Your task to perform on an android device: Open Google Maps Image 0: 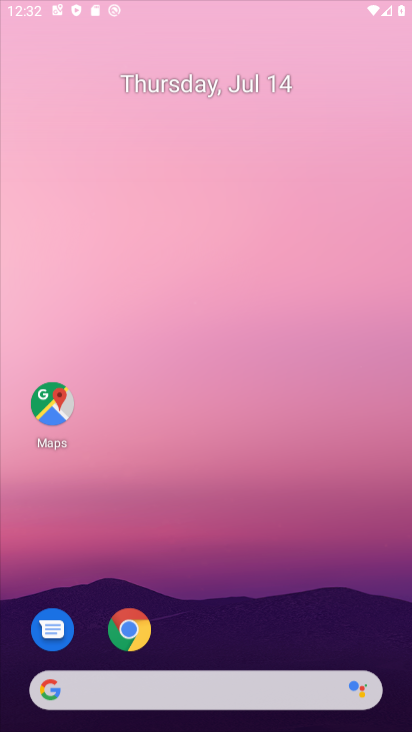
Step 0: click (243, 307)
Your task to perform on an android device: Open Google Maps Image 1: 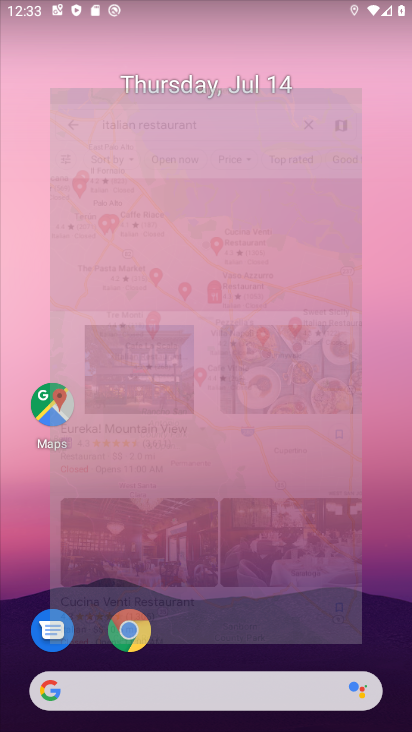
Step 1: drag from (275, 663) to (292, 485)
Your task to perform on an android device: Open Google Maps Image 2: 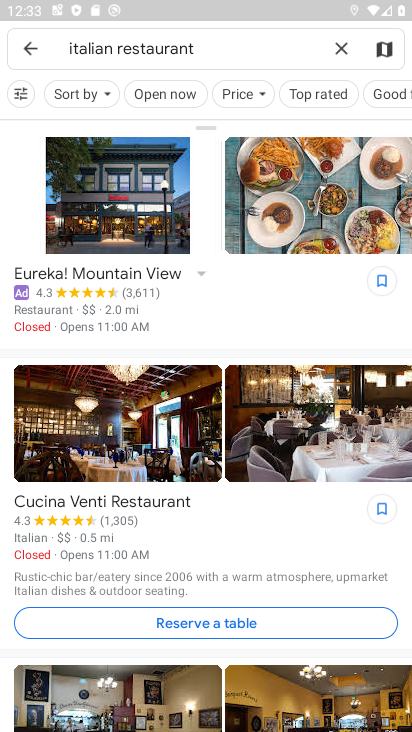
Step 2: click (30, 45)
Your task to perform on an android device: Open Google Maps Image 3: 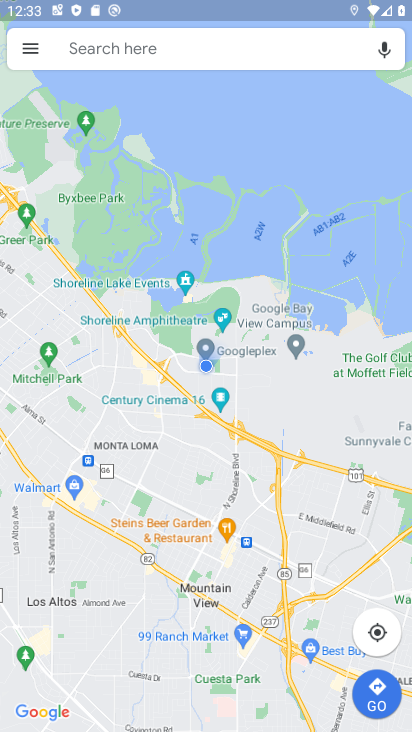
Step 3: task complete